Your task to perform on an android device: Show me productivity apps on the Play Store Image 0: 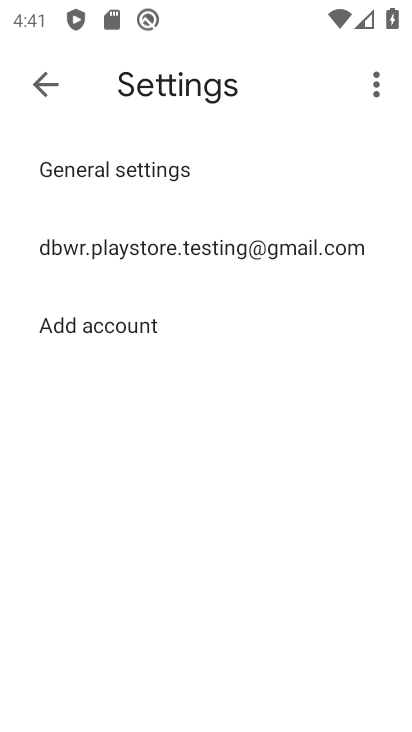
Step 0: press home button
Your task to perform on an android device: Show me productivity apps on the Play Store Image 1: 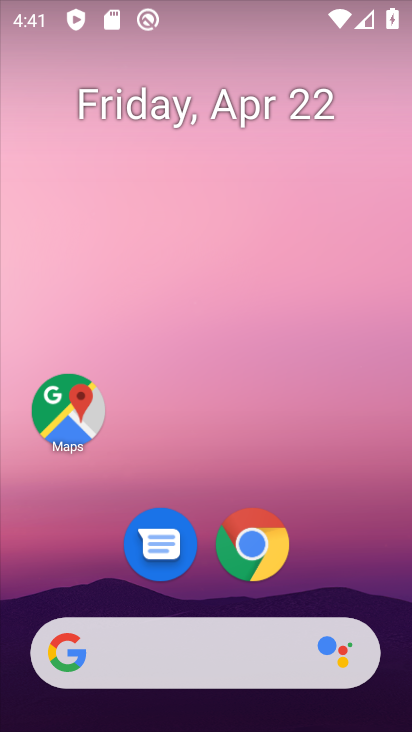
Step 1: drag from (170, 619) to (176, 196)
Your task to perform on an android device: Show me productivity apps on the Play Store Image 2: 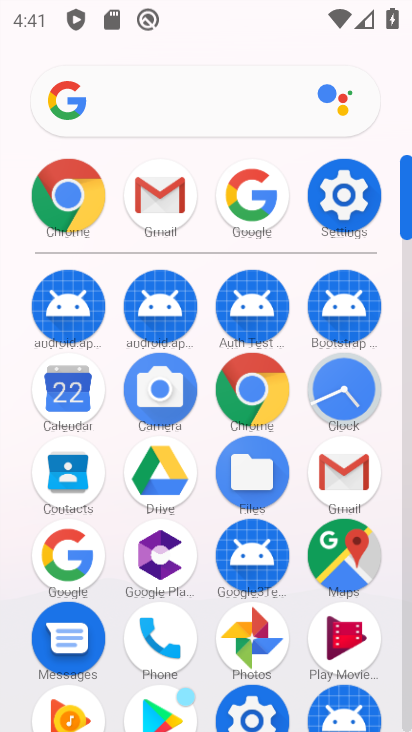
Step 2: click (163, 712)
Your task to perform on an android device: Show me productivity apps on the Play Store Image 3: 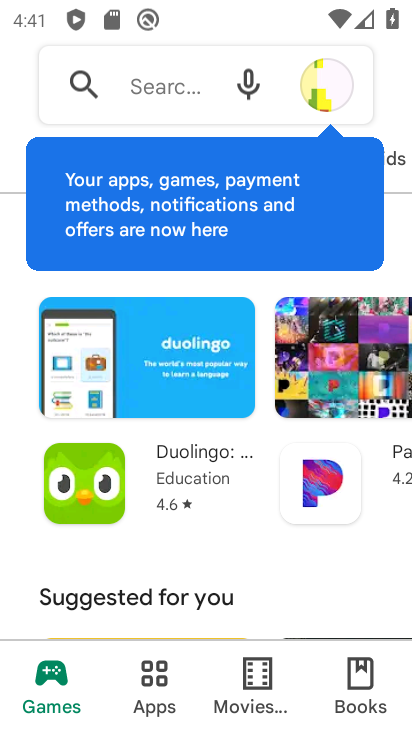
Step 3: click (156, 693)
Your task to perform on an android device: Show me productivity apps on the Play Store Image 4: 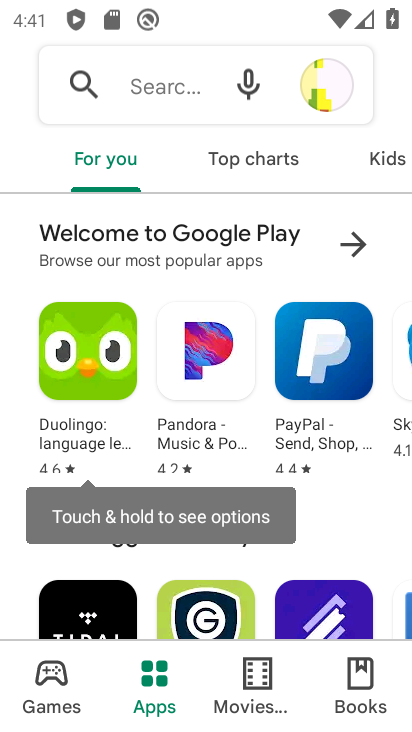
Step 4: task complete